Your task to perform on an android device: install app "Indeed Job Search" Image 0: 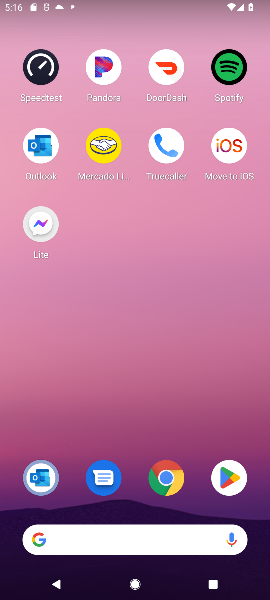
Step 0: press home button
Your task to perform on an android device: install app "Indeed Job Search" Image 1: 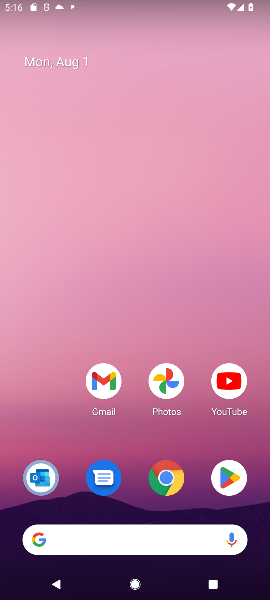
Step 1: click (228, 468)
Your task to perform on an android device: install app "Indeed Job Search" Image 2: 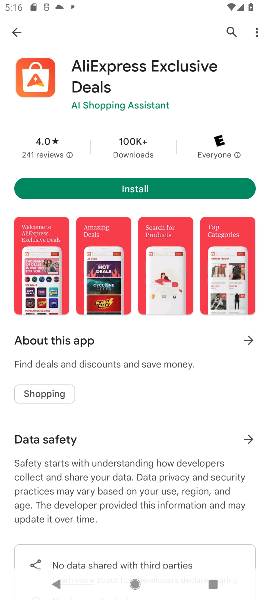
Step 2: click (225, 29)
Your task to perform on an android device: install app "Indeed Job Search" Image 3: 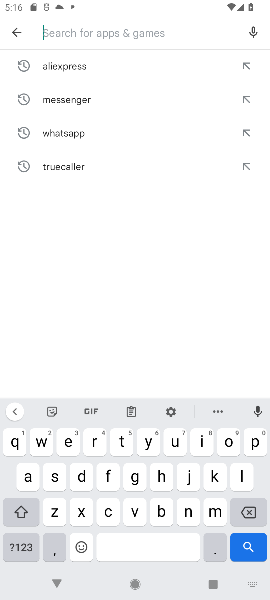
Step 3: click (199, 448)
Your task to perform on an android device: install app "Indeed Job Search" Image 4: 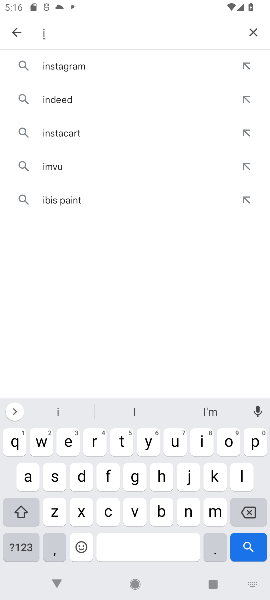
Step 4: click (189, 512)
Your task to perform on an android device: install app "Indeed Job Search" Image 5: 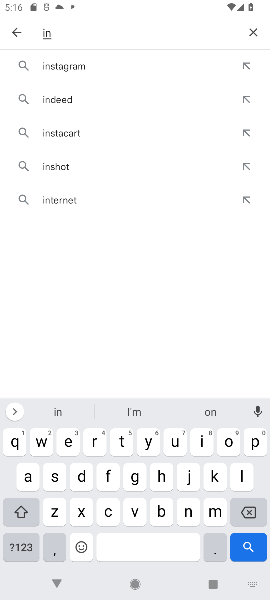
Step 5: click (79, 98)
Your task to perform on an android device: install app "Indeed Job Search" Image 6: 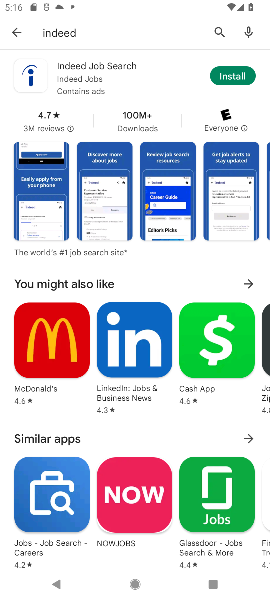
Step 6: click (214, 75)
Your task to perform on an android device: install app "Indeed Job Search" Image 7: 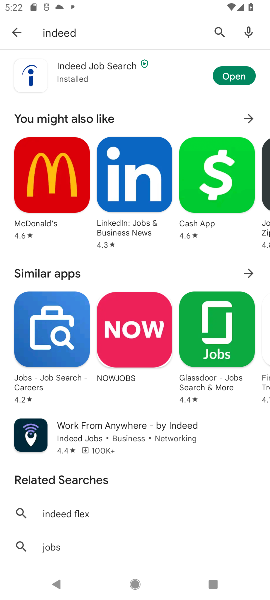
Step 7: task complete